Your task to perform on an android device: turn on notifications settings in the gmail app Image 0: 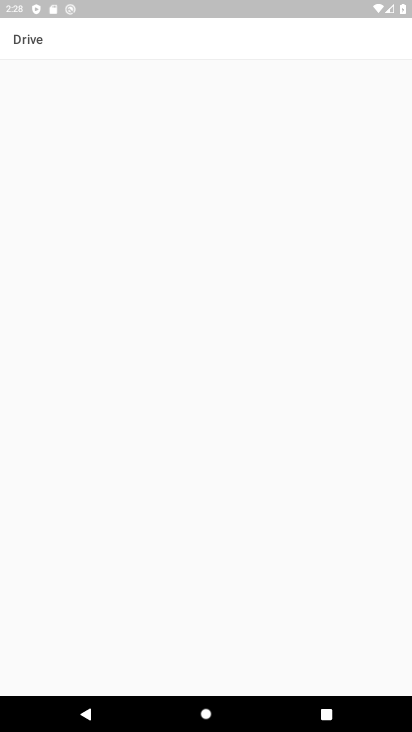
Step 0: drag from (227, 670) to (197, 486)
Your task to perform on an android device: turn on notifications settings in the gmail app Image 1: 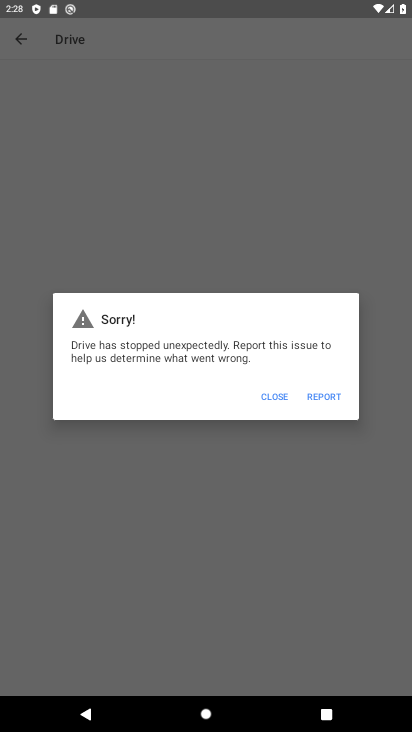
Step 1: click (281, 390)
Your task to perform on an android device: turn on notifications settings in the gmail app Image 2: 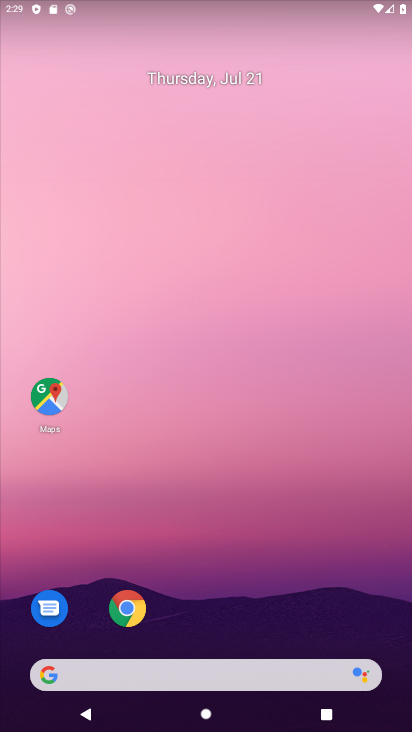
Step 2: drag from (208, 664) to (171, 187)
Your task to perform on an android device: turn on notifications settings in the gmail app Image 3: 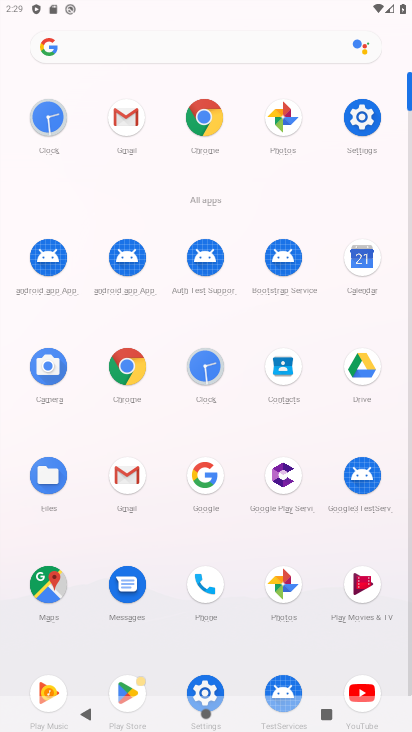
Step 3: click (135, 469)
Your task to perform on an android device: turn on notifications settings in the gmail app Image 4: 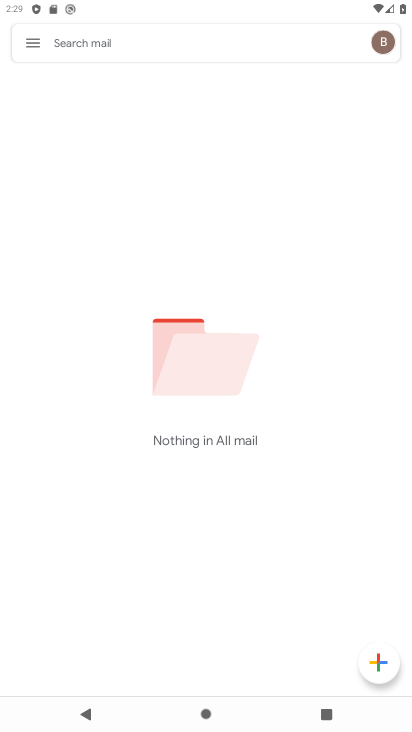
Step 4: click (36, 46)
Your task to perform on an android device: turn on notifications settings in the gmail app Image 5: 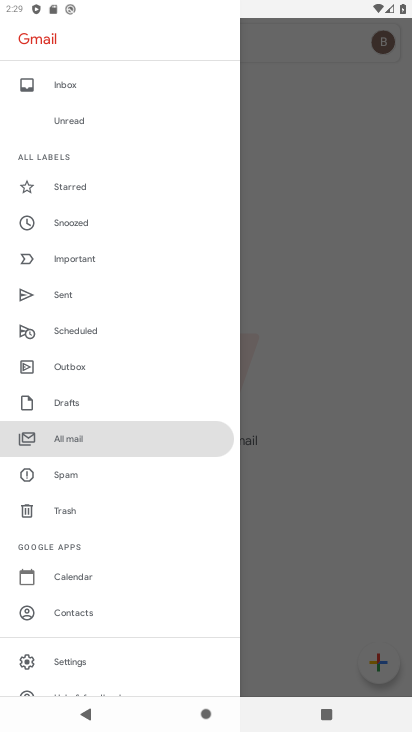
Step 5: click (75, 659)
Your task to perform on an android device: turn on notifications settings in the gmail app Image 6: 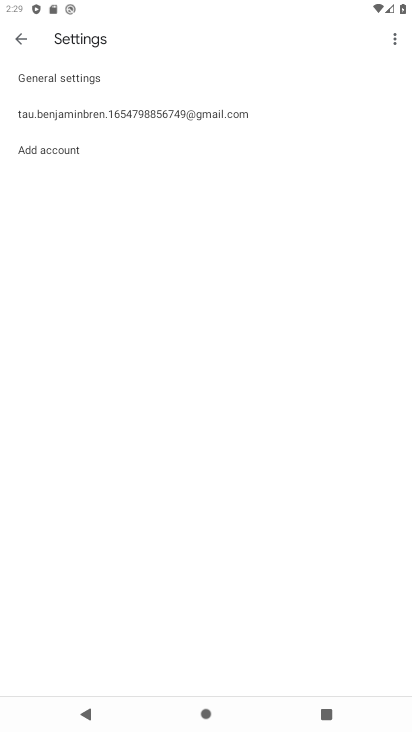
Step 6: click (95, 110)
Your task to perform on an android device: turn on notifications settings in the gmail app Image 7: 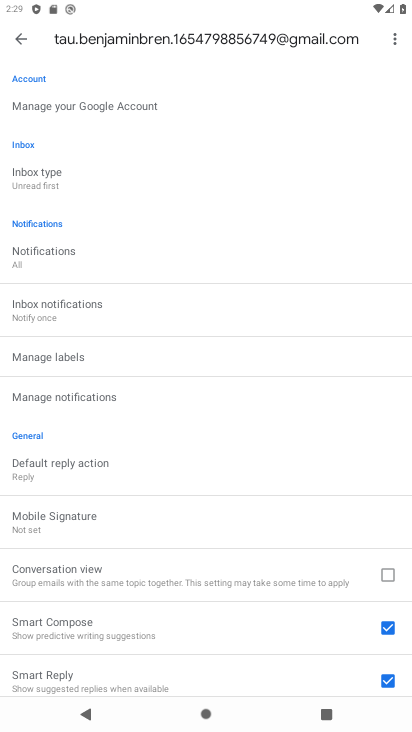
Step 7: click (89, 390)
Your task to perform on an android device: turn on notifications settings in the gmail app Image 8: 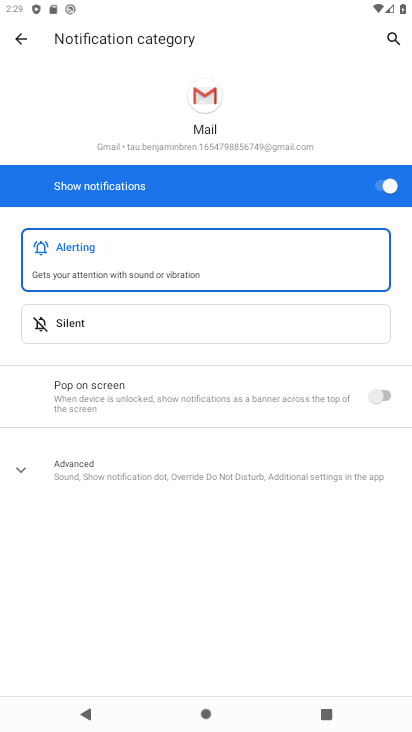
Step 8: task complete